Your task to perform on an android device: Open Chrome and go to the settings page Image 0: 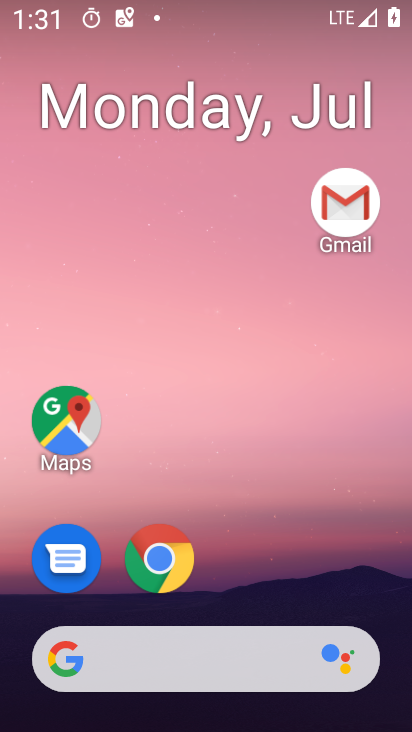
Step 0: drag from (337, 592) to (360, 144)
Your task to perform on an android device: Open Chrome and go to the settings page Image 1: 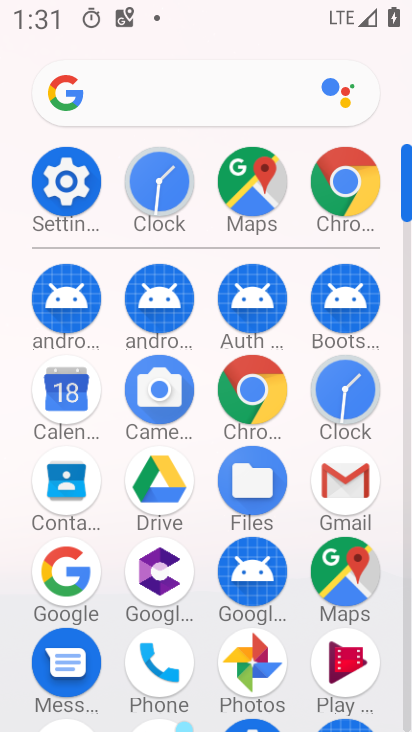
Step 1: click (254, 387)
Your task to perform on an android device: Open Chrome and go to the settings page Image 2: 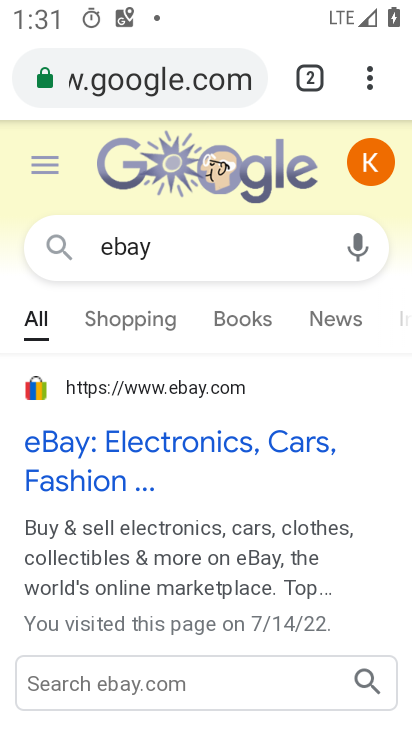
Step 2: click (368, 86)
Your task to perform on an android device: Open Chrome and go to the settings page Image 3: 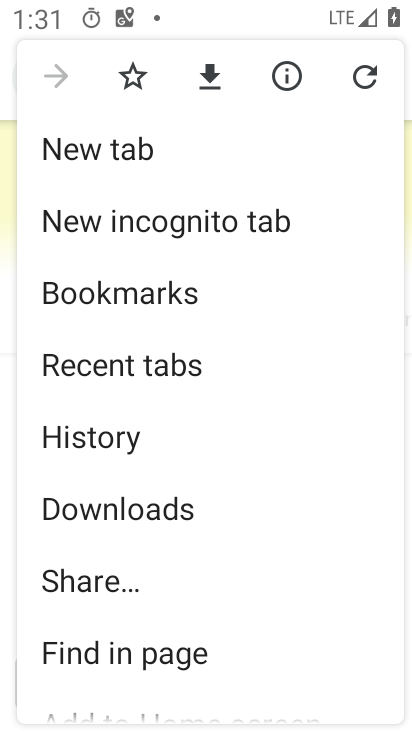
Step 3: drag from (337, 542) to (331, 474)
Your task to perform on an android device: Open Chrome and go to the settings page Image 4: 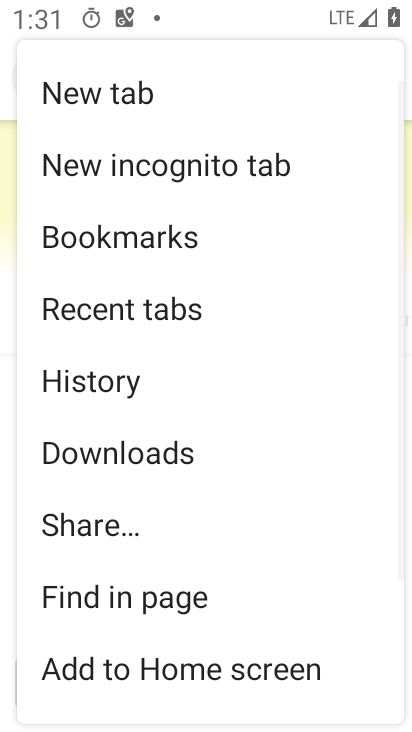
Step 4: drag from (333, 559) to (327, 493)
Your task to perform on an android device: Open Chrome and go to the settings page Image 5: 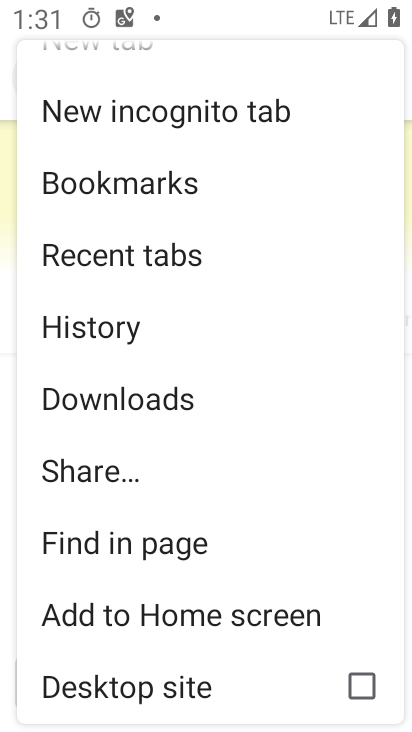
Step 5: drag from (326, 576) to (327, 470)
Your task to perform on an android device: Open Chrome and go to the settings page Image 6: 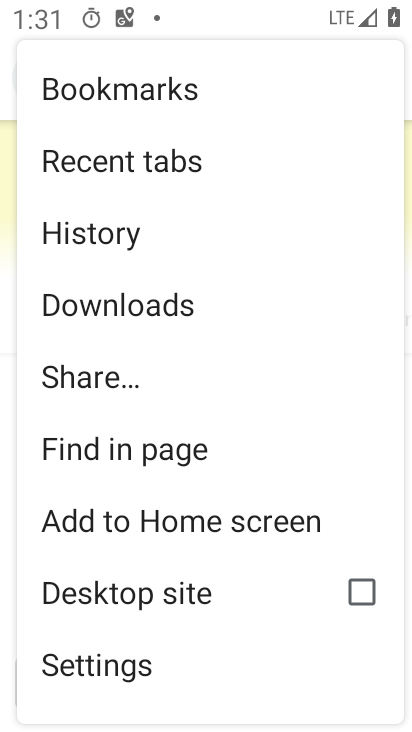
Step 6: drag from (295, 575) to (296, 522)
Your task to perform on an android device: Open Chrome and go to the settings page Image 7: 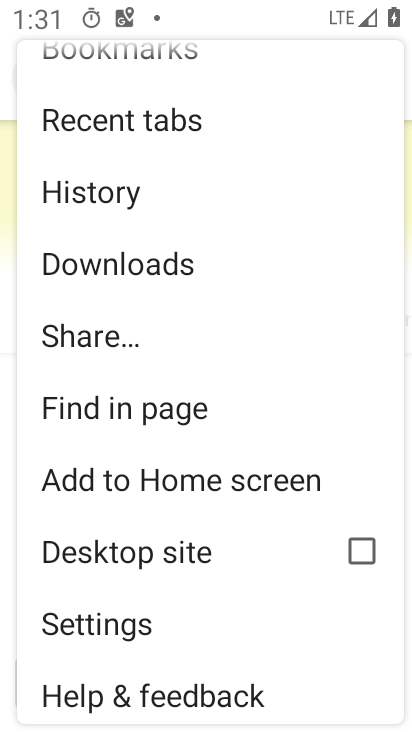
Step 7: drag from (288, 599) to (288, 536)
Your task to perform on an android device: Open Chrome and go to the settings page Image 8: 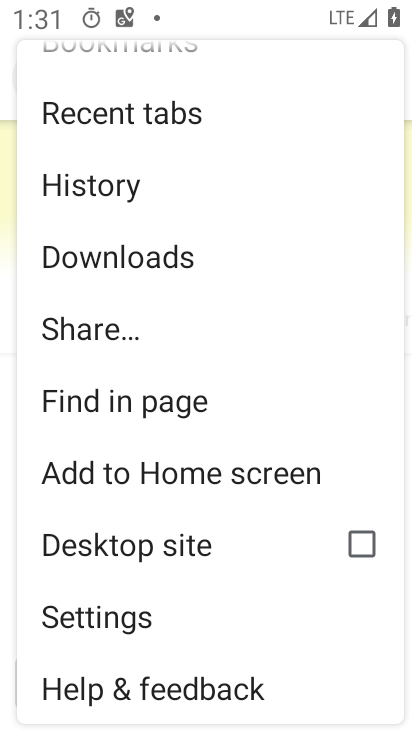
Step 8: drag from (285, 620) to (285, 548)
Your task to perform on an android device: Open Chrome and go to the settings page Image 9: 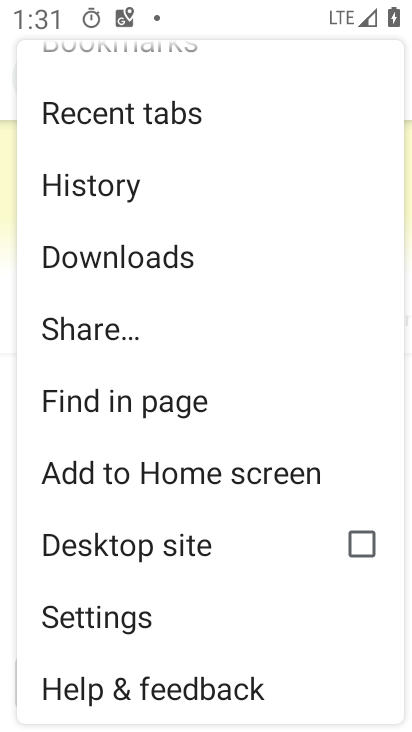
Step 9: click (181, 622)
Your task to perform on an android device: Open Chrome and go to the settings page Image 10: 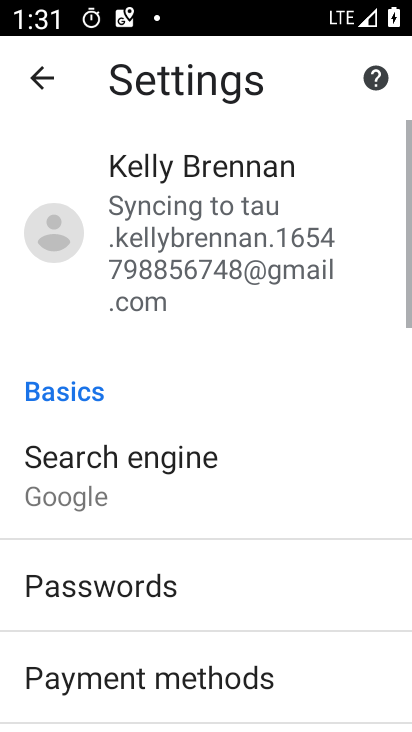
Step 10: task complete